Your task to perform on an android device: change text size in settings app Image 0: 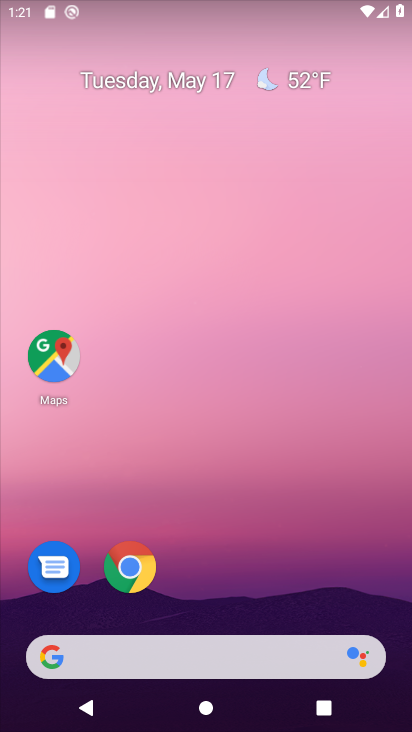
Step 0: click (136, 563)
Your task to perform on an android device: change text size in settings app Image 1: 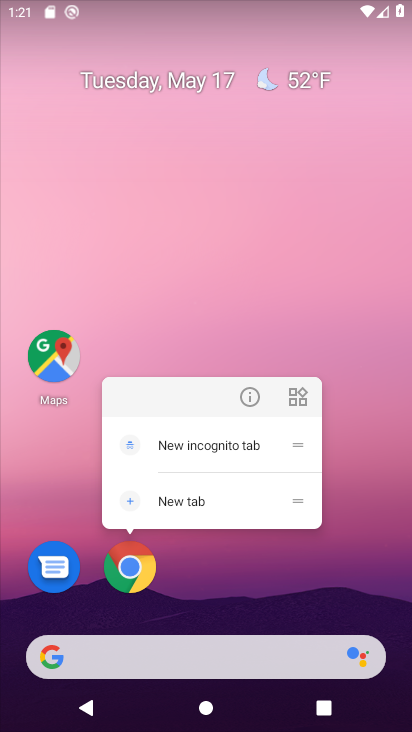
Step 1: click (328, 586)
Your task to perform on an android device: change text size in settings app Image 2: 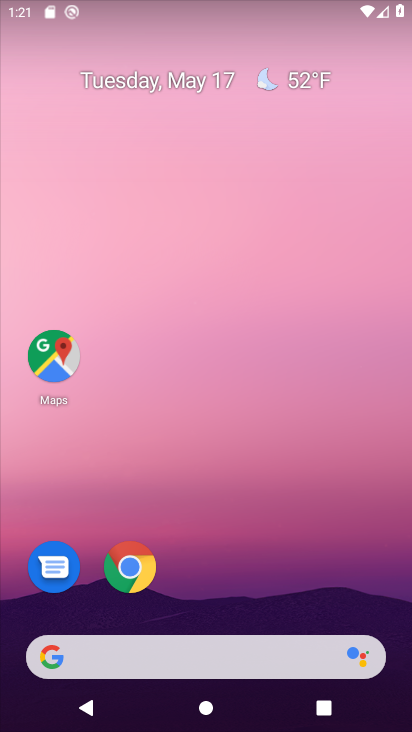
Step 2: drag from (236, 611) to (297, 18)
Your task to perform on an android device: change text size in settings app Image 3: 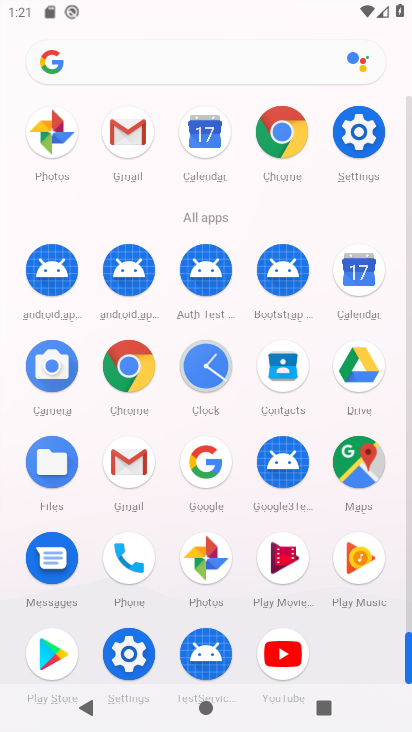
Step 3: click (357, 132)
Your task to perform on an android device: change text size in settings app Image 4: 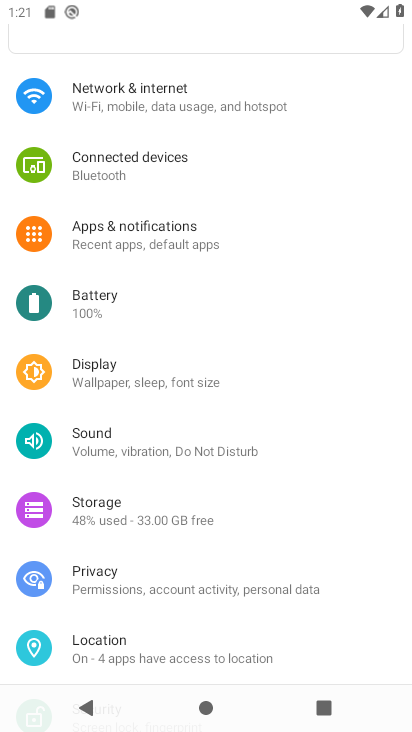
Step 4: click (94, 382)
Your task to perform on an android device: change text size in settings app Image 5: 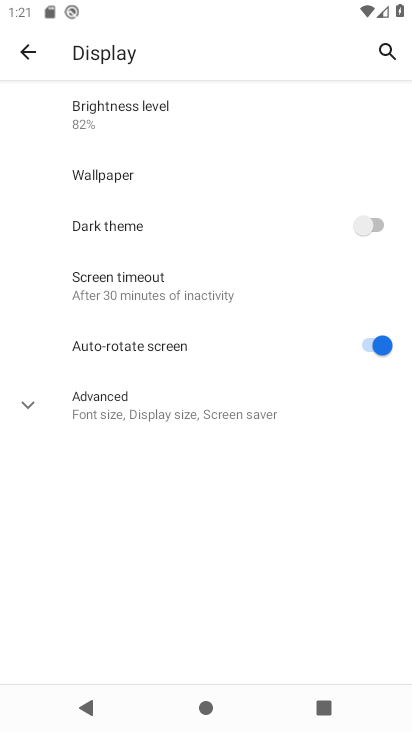
Step 5: click (142, 404)
Your task to perform on an android device: change text size in settings app Image 6: 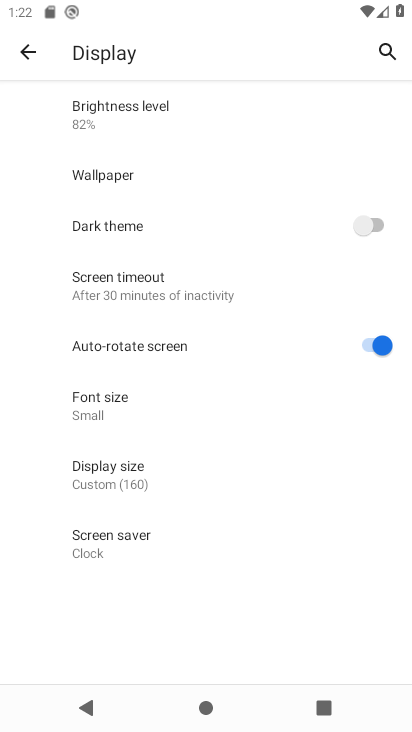
Step 6: click (93, 418)
Your task to perform on an android device: change text size in settings app Image 7: 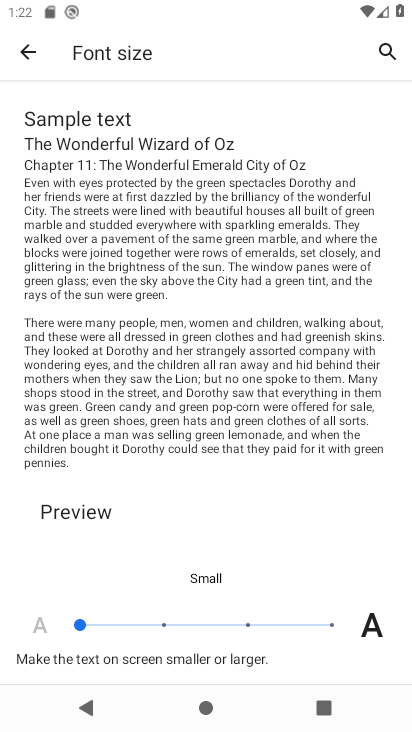
Step 7: click (157, 629)
Your task to perform on an android device: change text size in settings app Image 8: 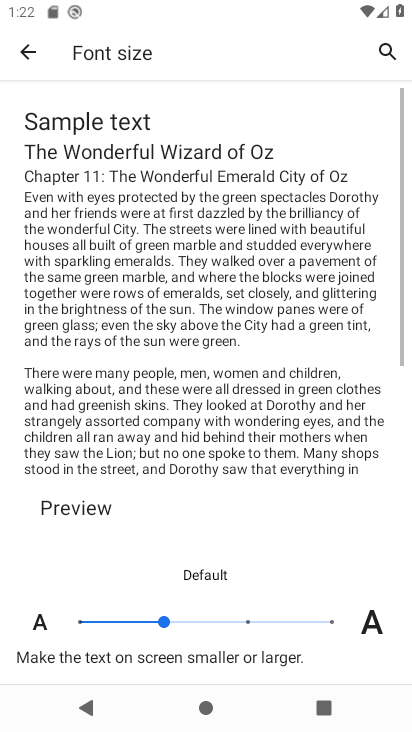
Step 8: task complete